Your task to perform on an android device: Go to Wikipedia Image 0: 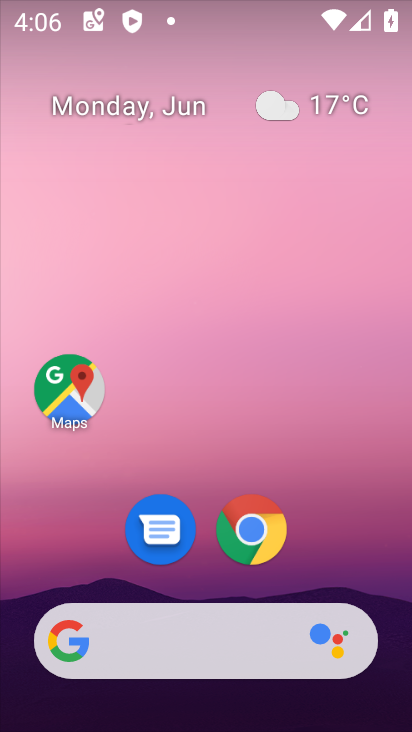
Step 0: click (253, 526)
Your task to perform on an android device: Go to Wikipedia Image 1: 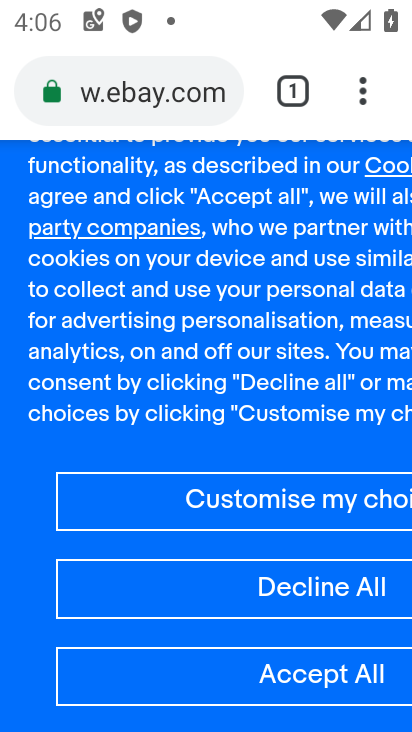
Step 1: click (210, 102)
Your task to perform on an android device: Go to Wikipedia Image 2: 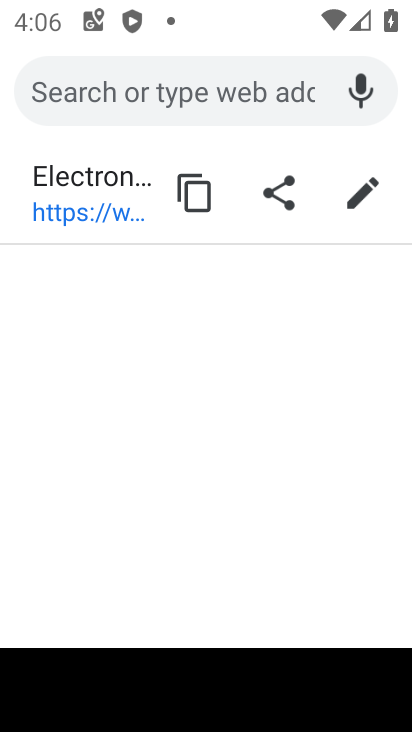
Step 2: type "wikipedia"
Your task to perform on an android device: Go to Wikipedia Image 3: 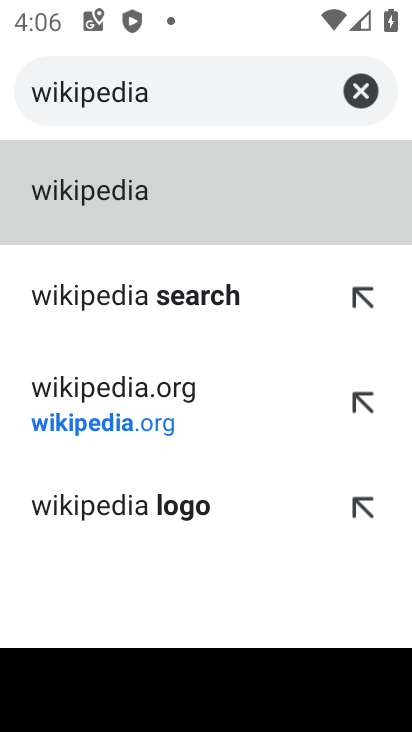
Step 3: click (182, 198)
Your task to perform on an android device: Go to Wikipedia Image 4: 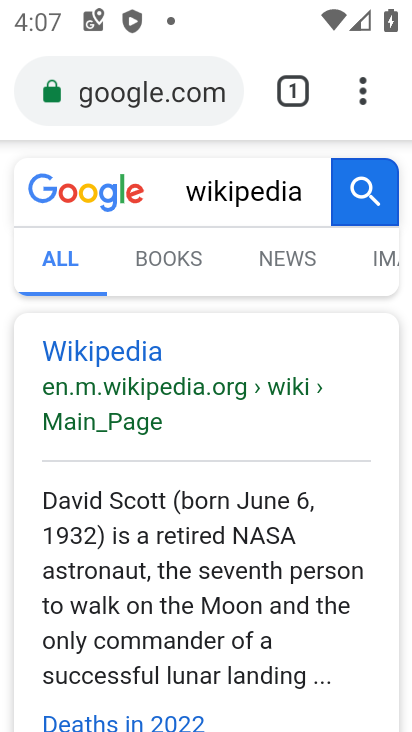
Step 4: click (140, 370)
Your task to perform on an android device: Go to Wikipedia Image 5: 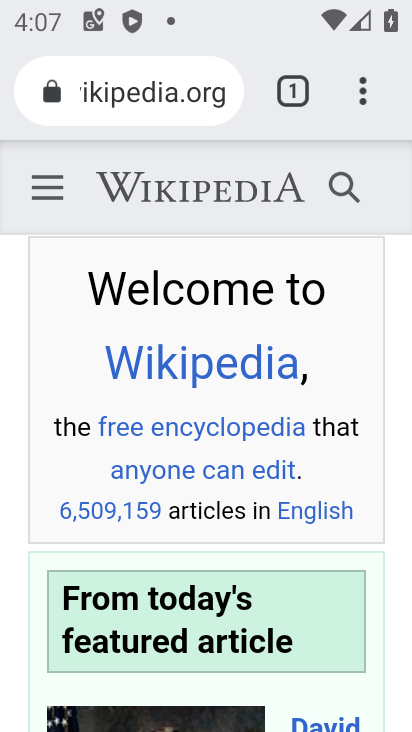
Step 5: task complete